Your task to perform on an android device: open app "Adobe Express: Graphic Design" (install if not already installed) Image 0: 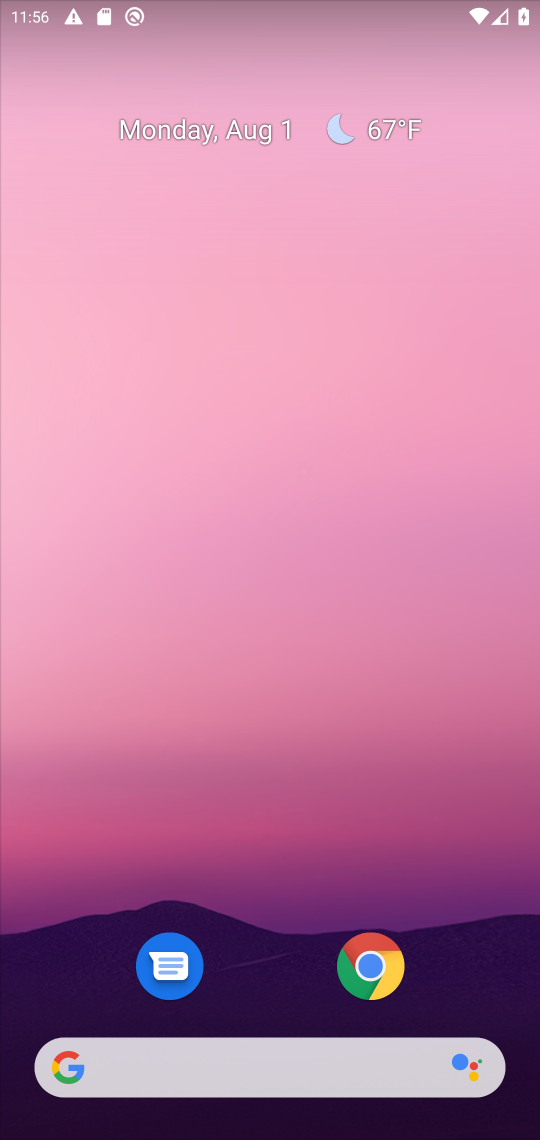
Step 0: drag from (454, 979) to (414, 133)
Your task to perform on an android device: open app "Adobe Express: Graphic Design" (install if not already installed) Image 1: 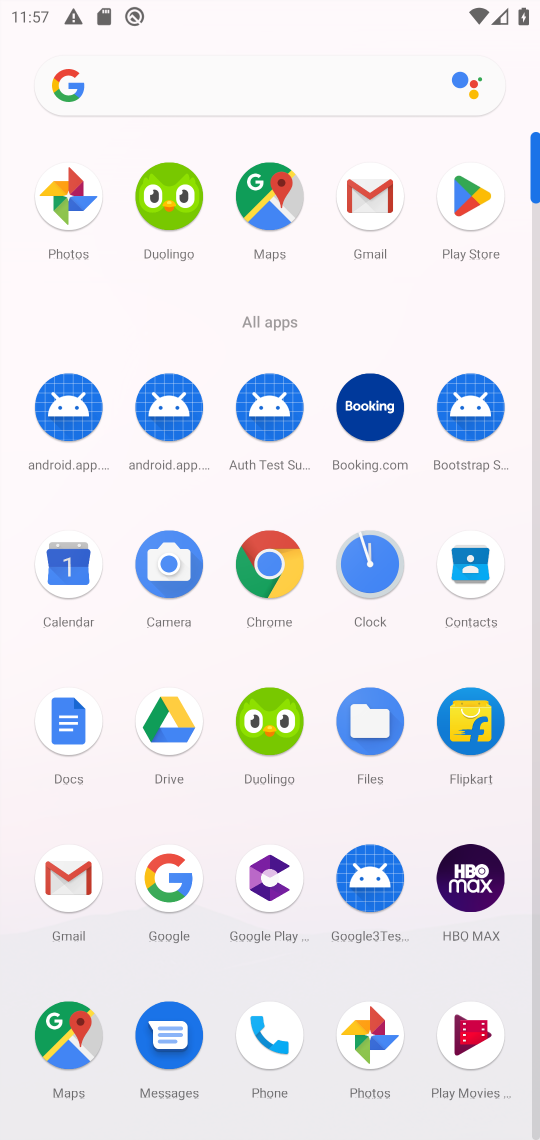
Step 1: click (469, 214)
Your task to perform on an android device: open app "Adobe Express: Graphic Design" (install if not already installed) Image 2: 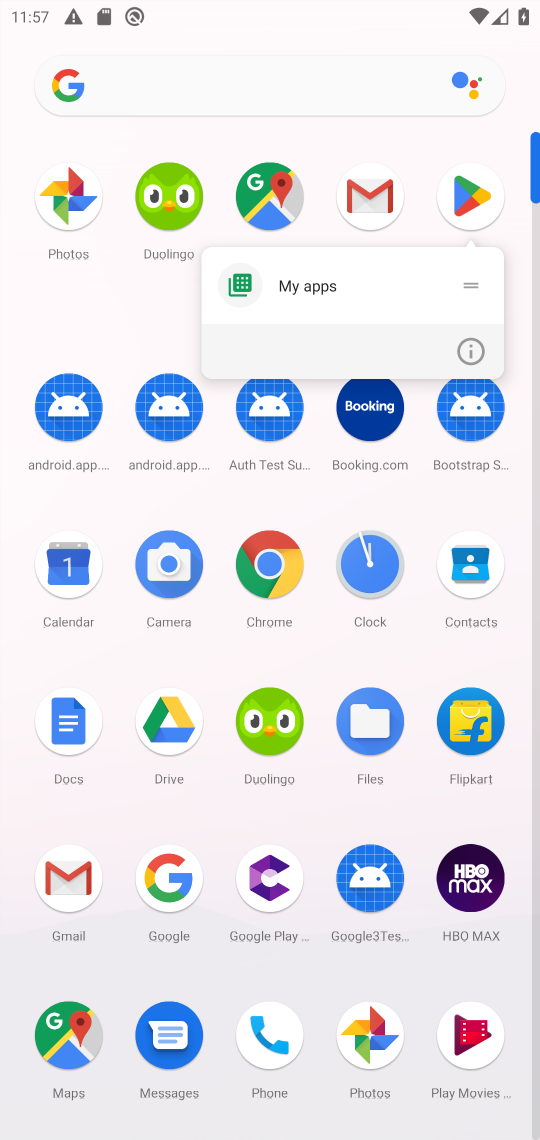
Step 2: click (465, 184)
Your task to perform on an android device: open app "Adobe Express: Graphic Design" (install if not already installed) Image 3: 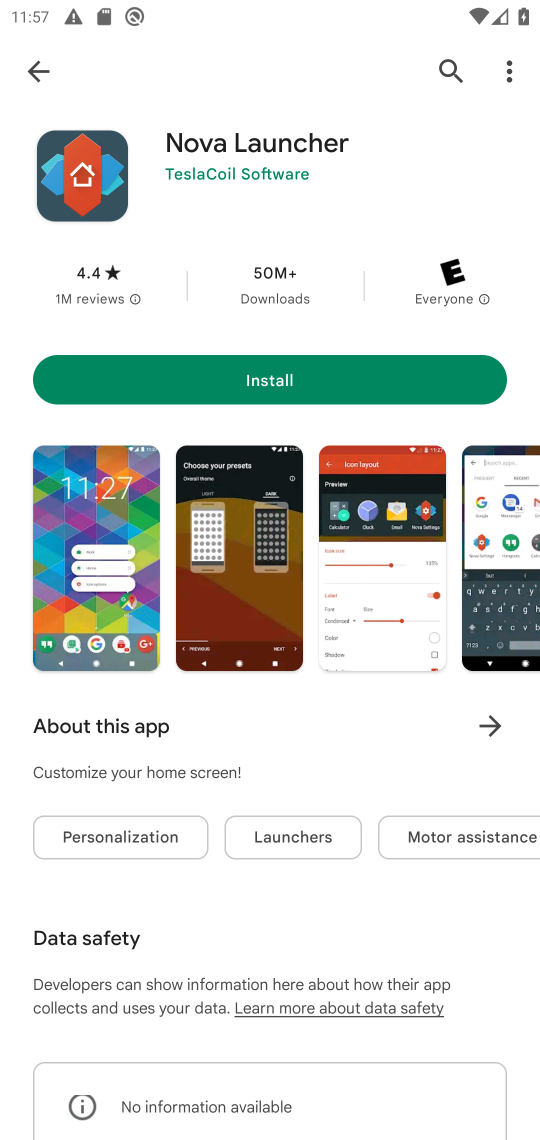
Step 3: click (441, 68)
Your task to perform on an android device: open app "Adobe Express: Graphic Design" (install if not already installed) Image 4: 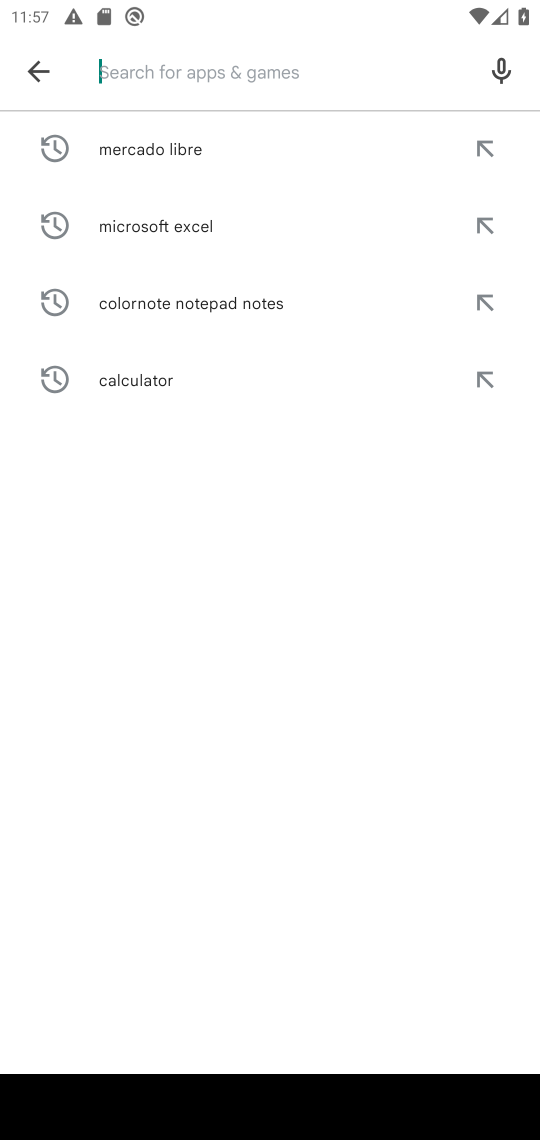
Step 4: type "Adobe Express: Graphic Design"
Your task to perform on an android device: open app "Adobe Express: Graphic Design" (install if not already installed) Image 5: 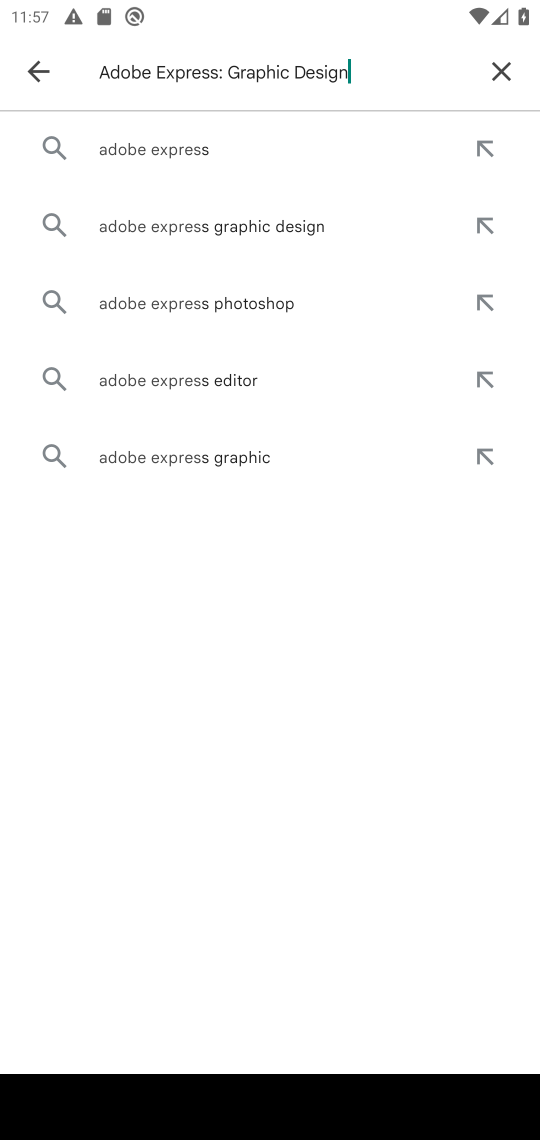
Step 5: press enter
Your task to perform on an android device: open app "Adobe Express: Graphic Design" (install if not already installed) Image 6: 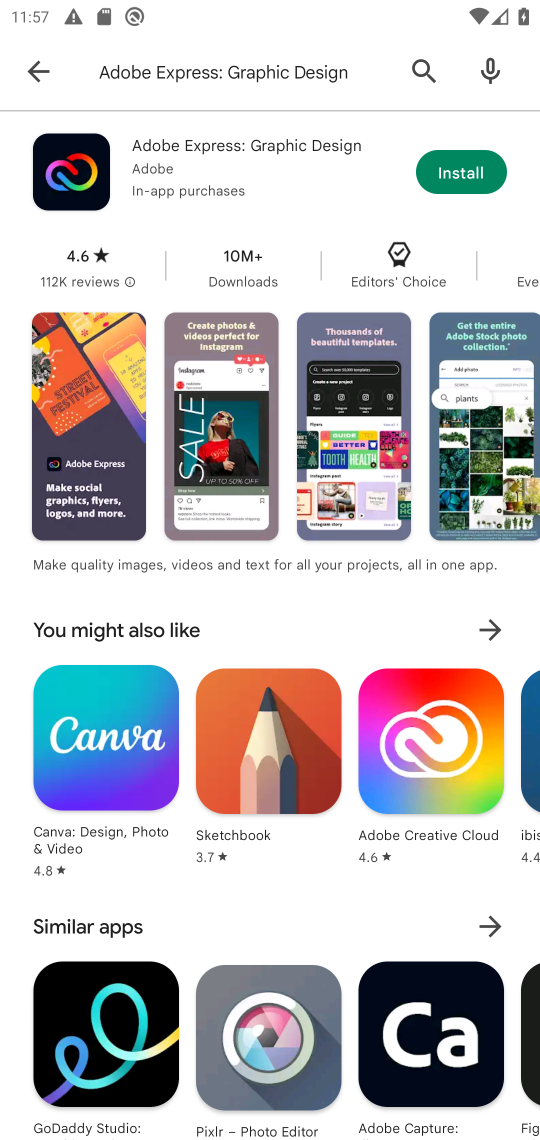
Step 6: click (477, 171)
Your task to perform on an android device: open app "Adobe Express: Graphic Design" (install if not already installed) Image 7: 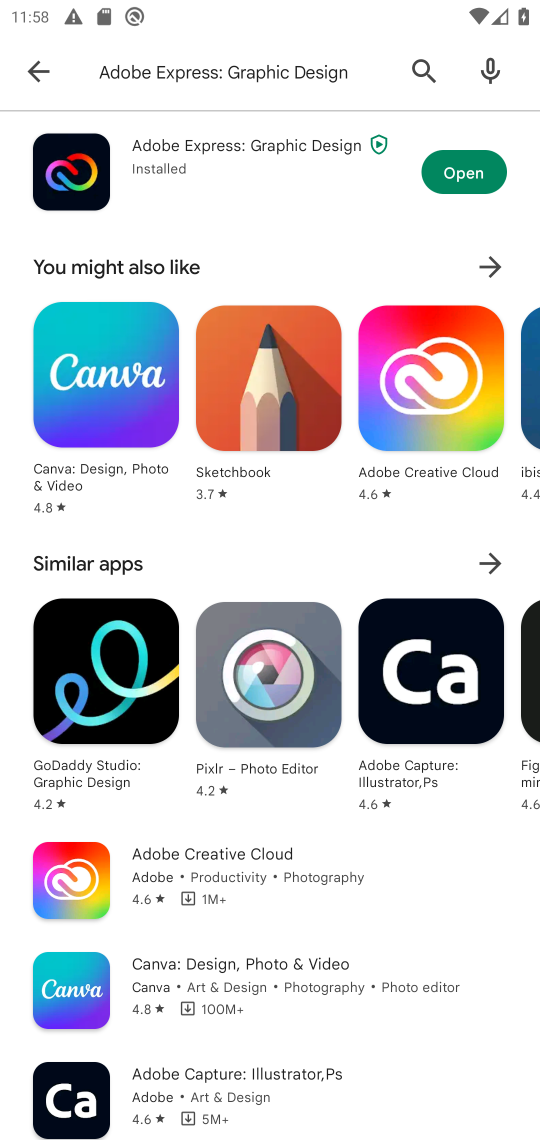
Step 7: click (471, 164)
Your task to perform on an android device: open app "Adobe Express: Graphic Design" (install if not already installed) Image 8: 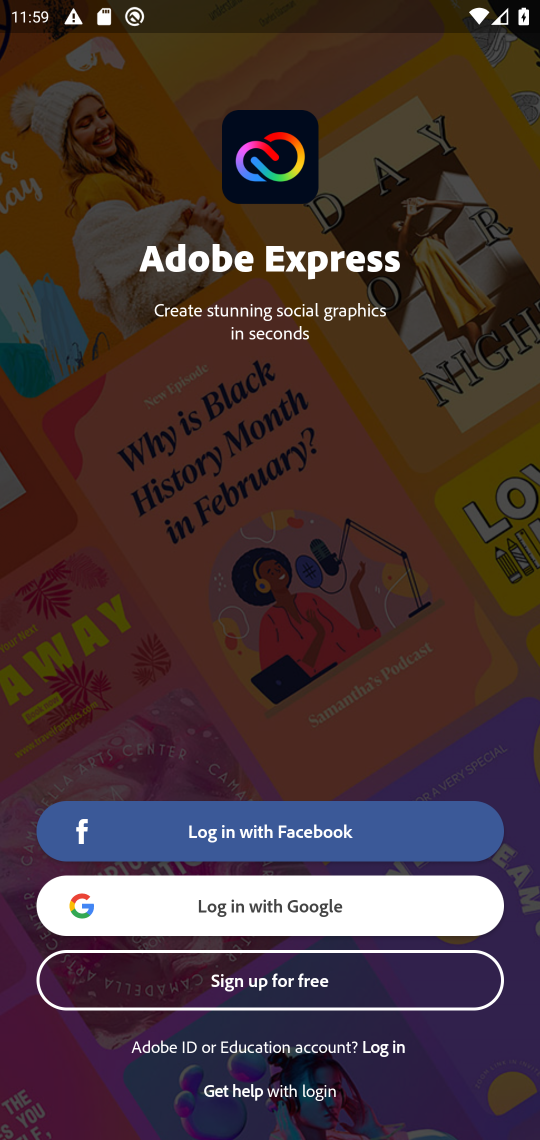
Step 8: task complete